Your task to perform on an android device: search for starred emails in the gmail app Image 0: 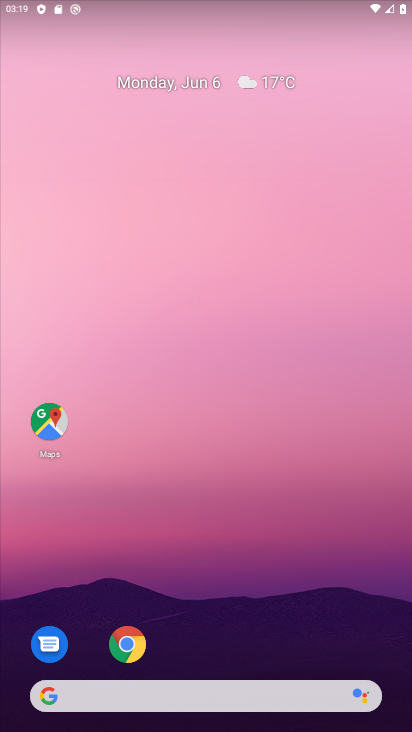
Step 0: drag from (395, 703) to (375, 96)
Your task to perform on an android device: search for starred emails in the gmail app Image 1: 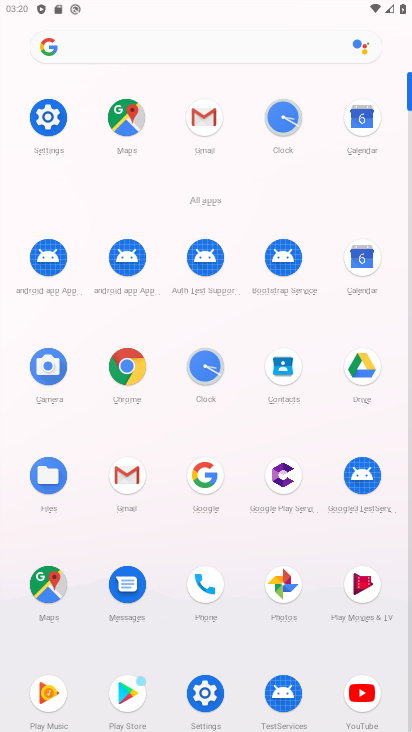
Step 1: click (125, 481)
Your task to perform on an android device: search for starred emails in the gmail app Image 2: 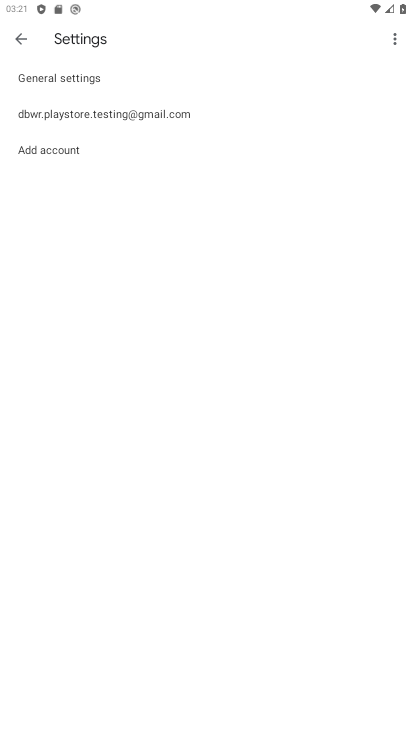
Step 2: click (22, 36)
Your task to perform on an android device: search for starred emails in the gmail app Image 3: 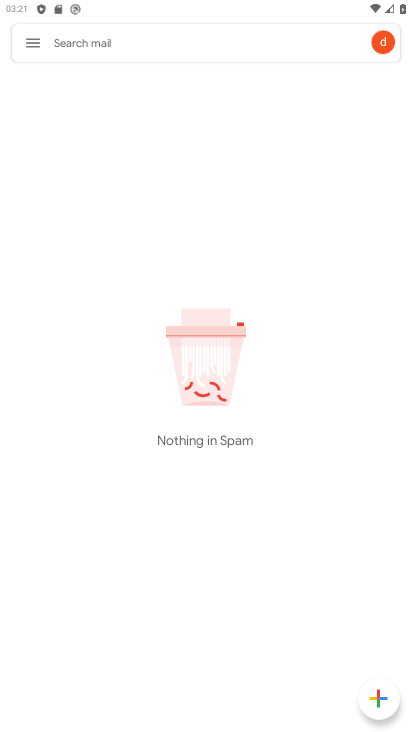
Step 3: click (22, 36)
Your task to perform on an android device: search for starred emails in the gmail app Image 4: 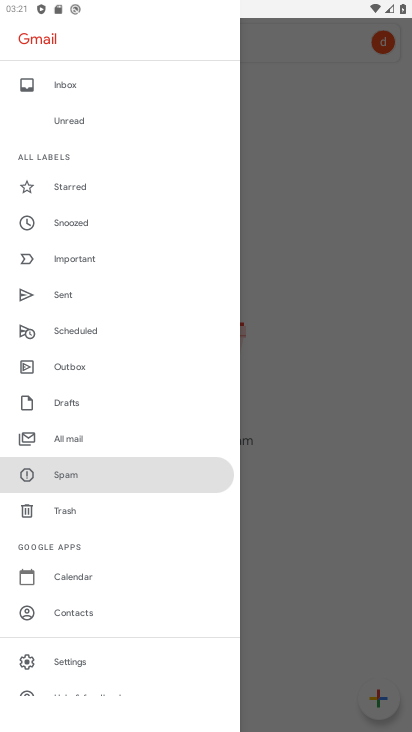
Step 4: click (63, 187)
Your task to perform on an android device: search for starred emails in the gmail app Image 5: 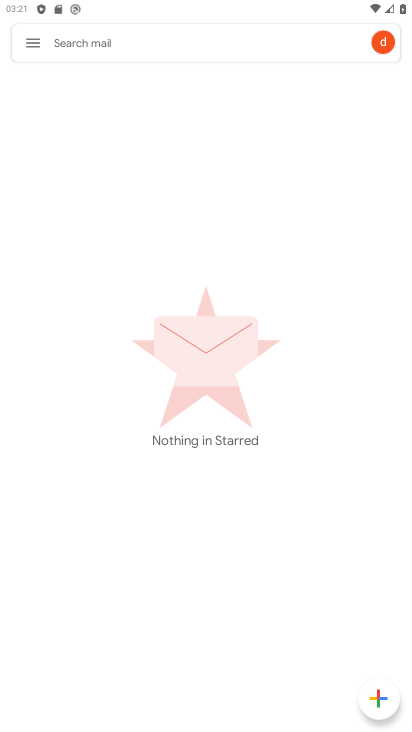
Step 5: task complete